Your task to perform on an android device: open chrome privacy settings Image 0: 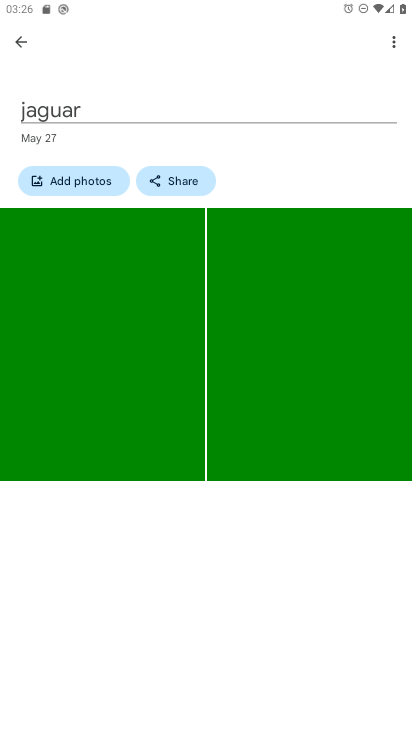
Step 0: press home button
Your task to perform on an android device: open chrome privacy settings Image 1: 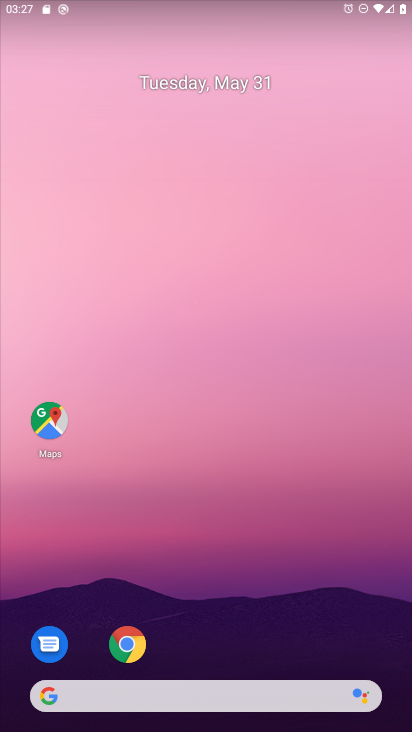
Step 1: click (126, 641)
Your task to perform on an android device: open chrome privacy settings Image 2: 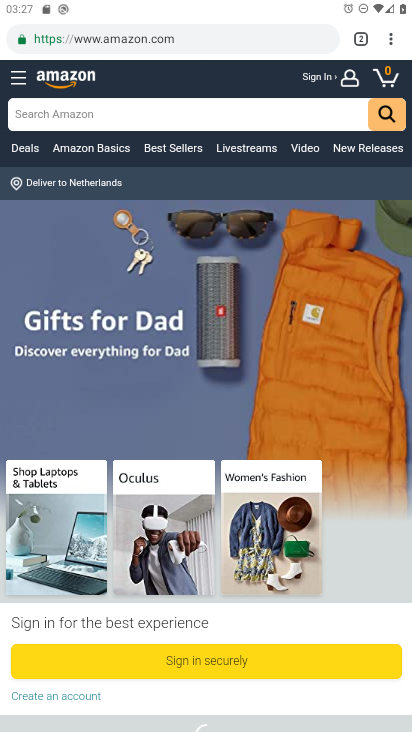
Step 2: click (394, 38)
Your task to perform on an android device: open chrome privacy settings Image 3: 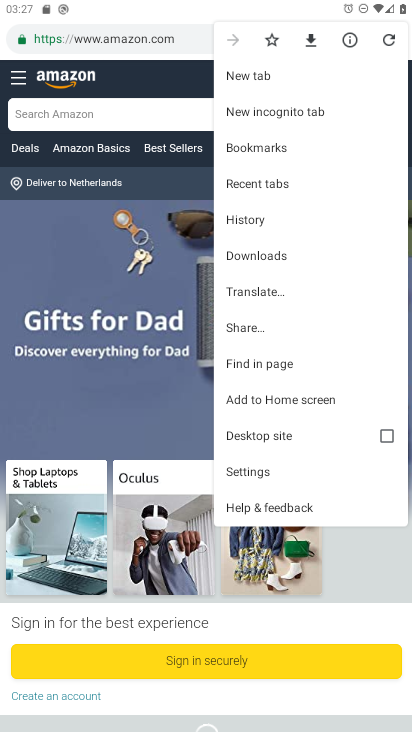
Step 3: click (266, 471)
Your task to perform on an android device: open chrome privacy settings Image 4: 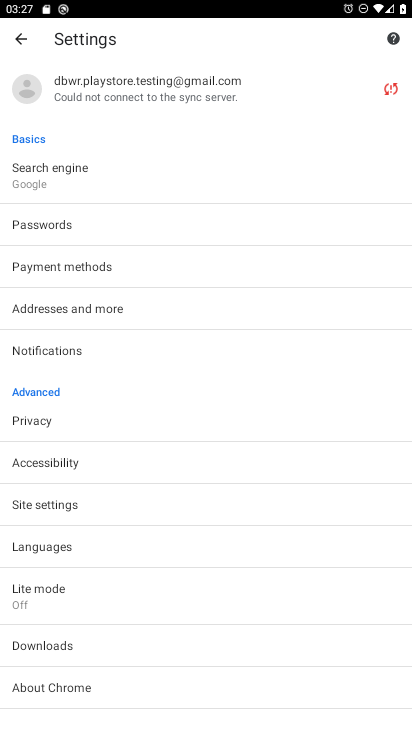
Step 4: click (66, 505)
Your task to perform on an android device: open chrome privacy settings Image 5: 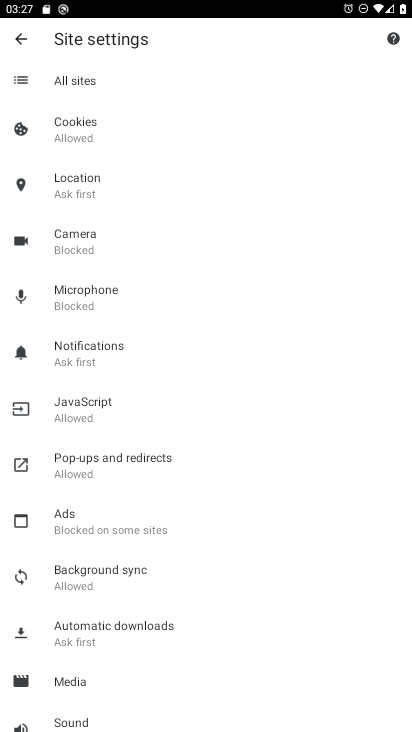
Step 5: click (22, 31)
Your task to perform on an android device: open chrome privacy settings Image 6: 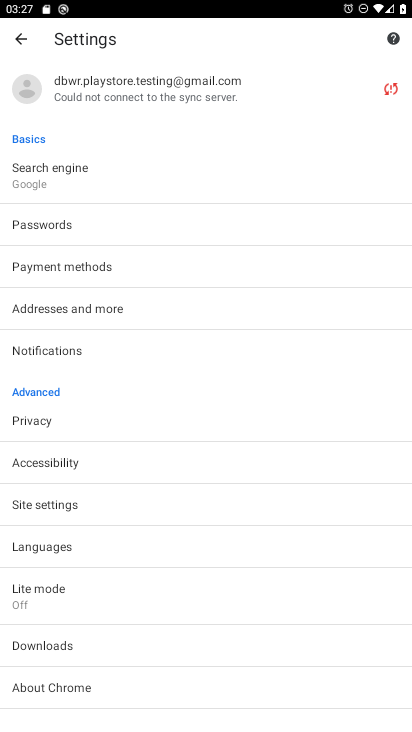
Step 6: click (39, 418)
Your task to perform on an android device: open chrome privacy settings Image 7: 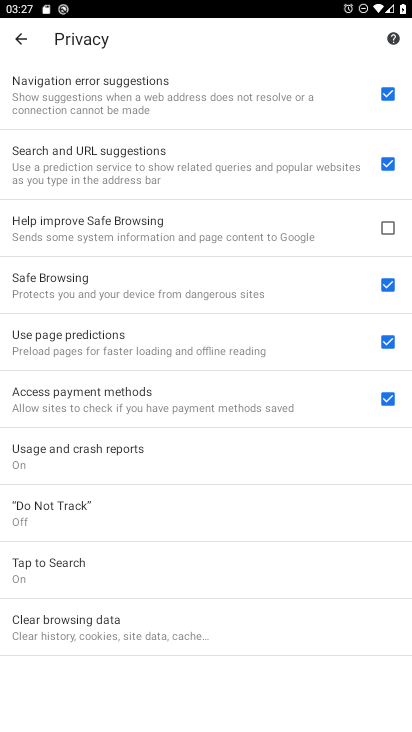
Step 7: task complete